Your task to perform on an android device: turn on bluetooth scan Image 0: 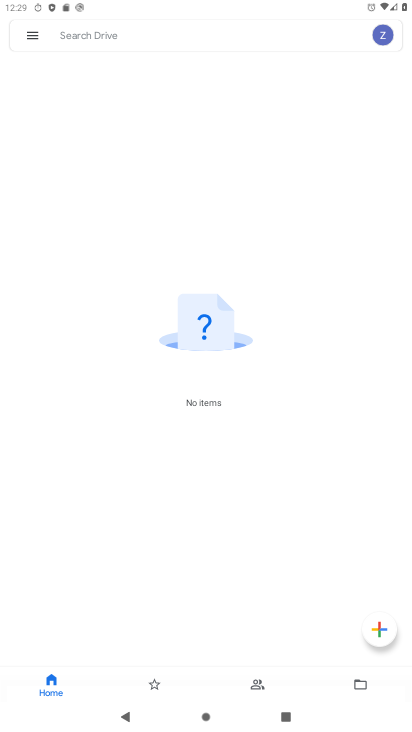
Step 0: press home button
Your task to perform on an android device: turn on bluetooth scan Image 1: 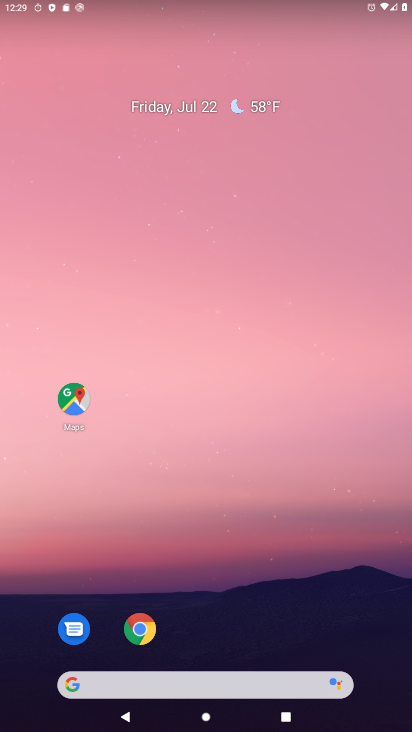
Step 1: drag from (380, 603) to (394, 104)
Your task to perform on an android device: turn on bluetooth scan Image 2: 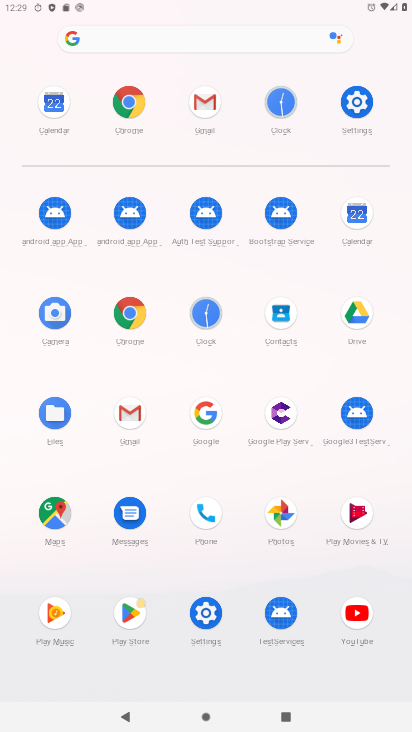
Step 2: click (356, 101)
Your task to perform on an android device: turn on bluetooth scan Image 3: 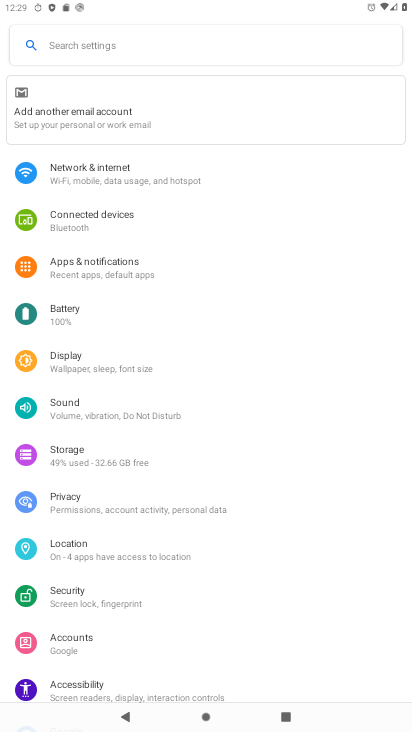
Step 3: drag from (310, 457) to (291, 315)
Your task to perform on an android device: turn on bluetooth scan Image 4: 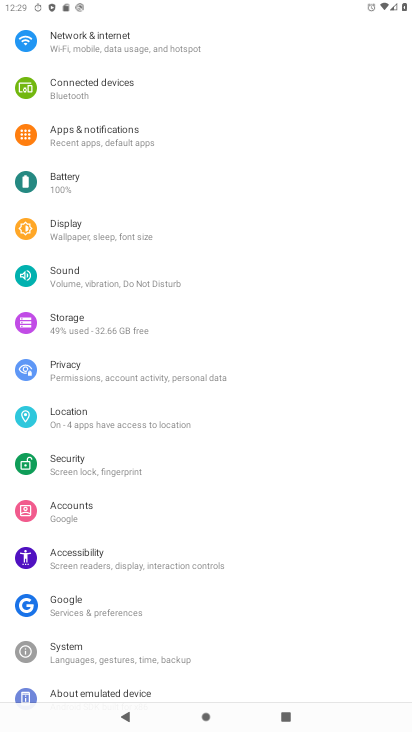
Step 4: click (147, 430)
Your task to perform on an android device: turn on bluetooth scan Image 5: 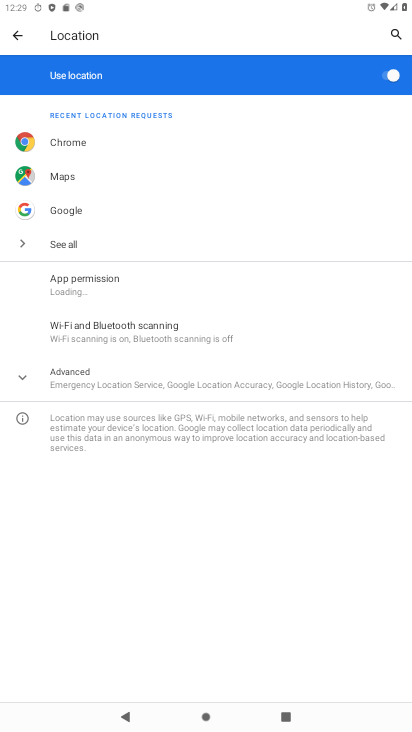
Step 5: click (191, 325)
Your task to perform on an android device: turn on bluetooth scan Image 6: 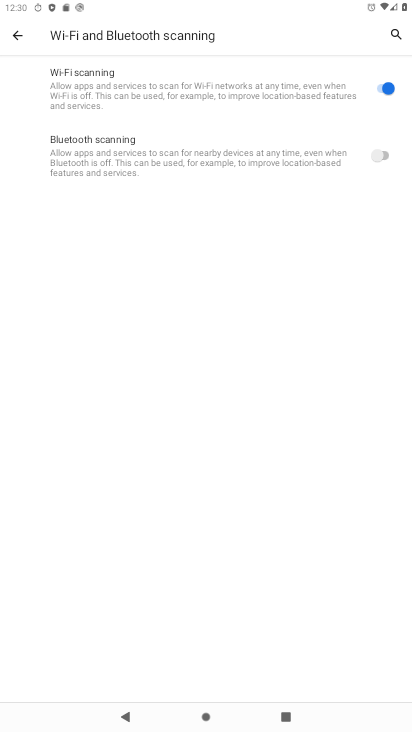
Step 6: click (375, 152)
Your task to perform on an android device: turn on bluetooth scan Image 7: 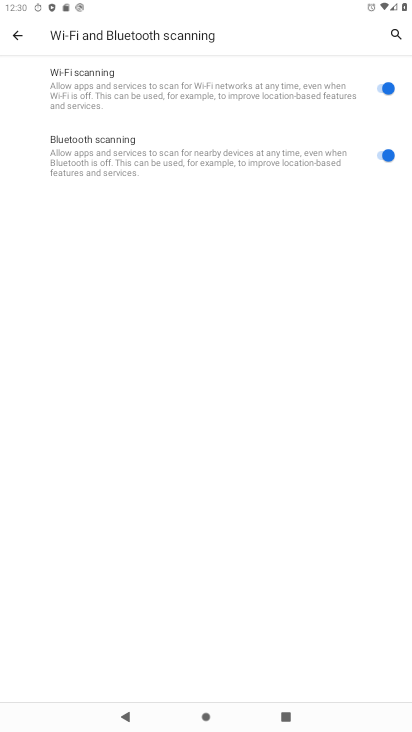
Step 7: task complete